Your task to perform on an android device: Show me popular games on the Play Store Image 0: 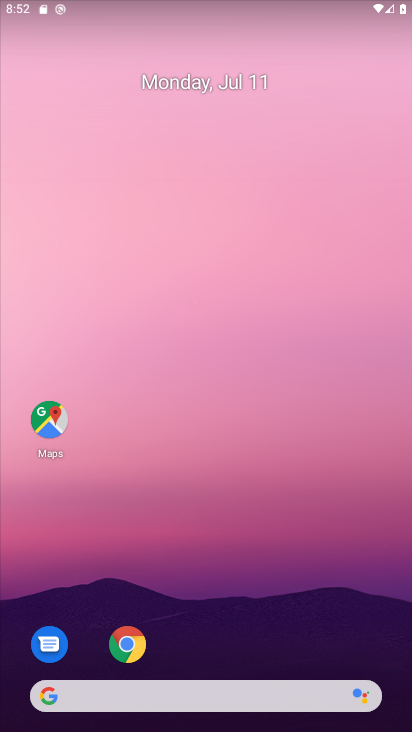
Step 0: drag from (175, 682) to (163, 407)
Your task to perform on an android device: Show me popular games on the Play Store Image 1: 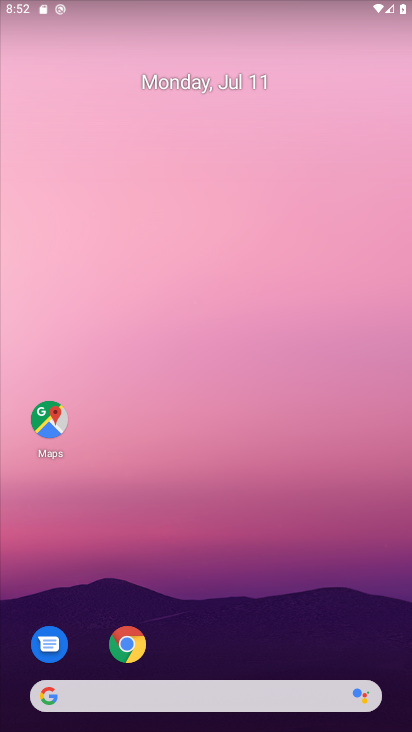
Step 1: drag from (183, 689) to (181, 248)
Your task to perform on an android device: Show me popular games on the Play Store Image 2: 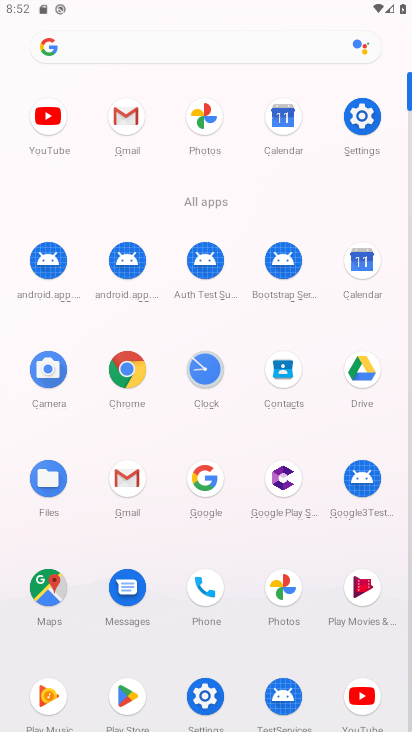
Step 2: click (124, 696)
Your task to perform on an android device: Show me popular games on the Play Store Image 3: 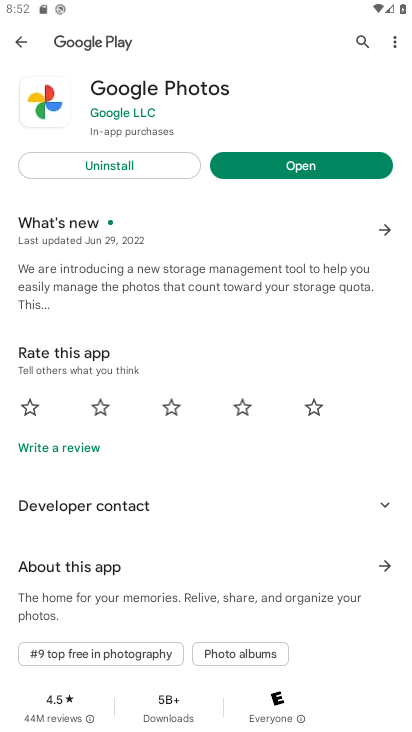
Step 3: click (23, 40)
Your task to perform on an android device: Show me popular games on the Play Store Image 4: 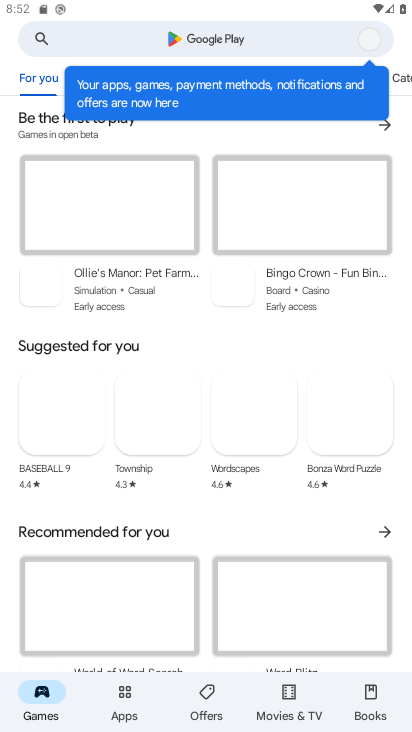
Step 4: click (218, 37)
Your task to perform on an android device: Show me popular games on the Play Store Image 5: 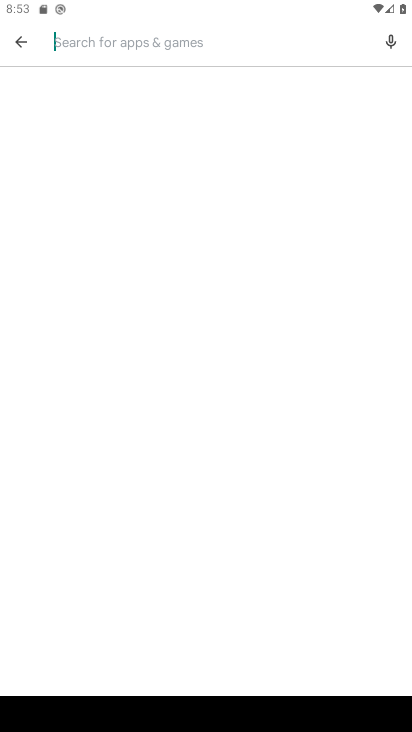
Step 5: type "popular games "
Your task to perform on an android device: Show me popular games on the Play Store Image 6: 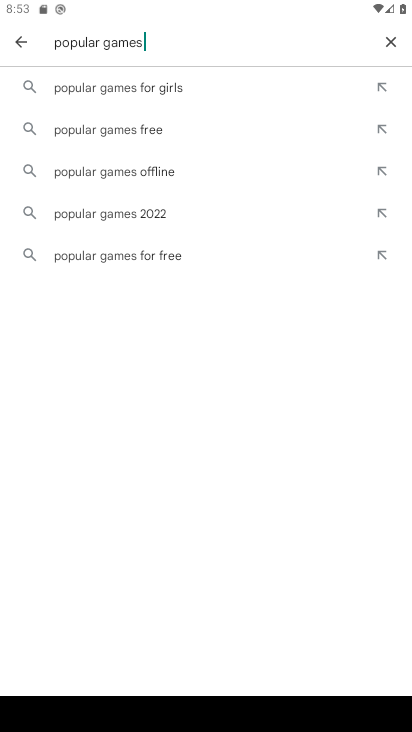
Step 6: click (146, 86)
Your task to perform on an android device: Show me popular games on the Play Store Image 7: 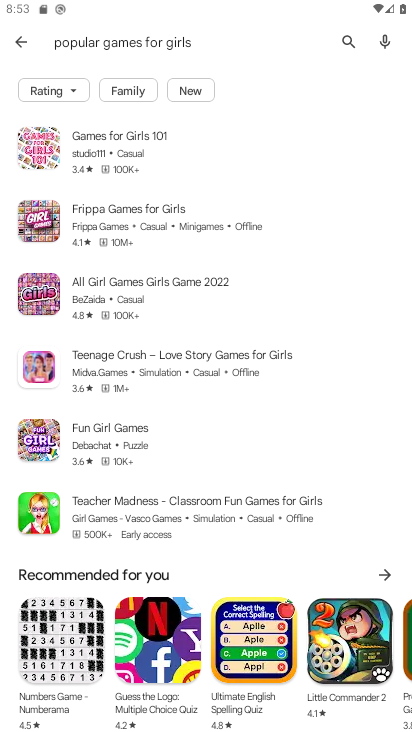
Step 7: task complete